Your task to perform on an android device: Open calendar and show me the third week of next month Image 0: 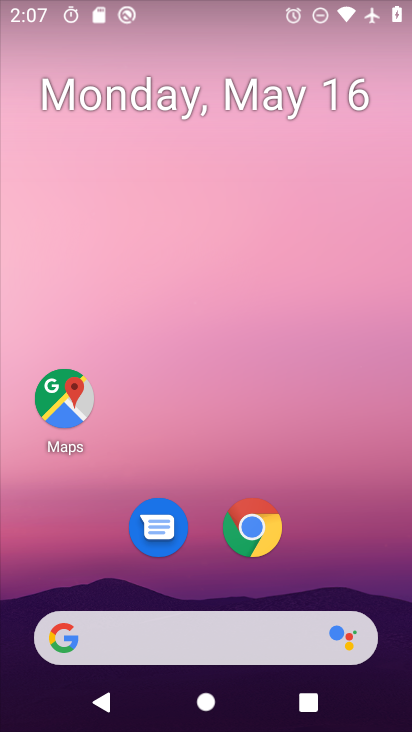
Step 0: press home button
Your task to perform on an android device: Open calendar and show me the third week of next month Image 1: 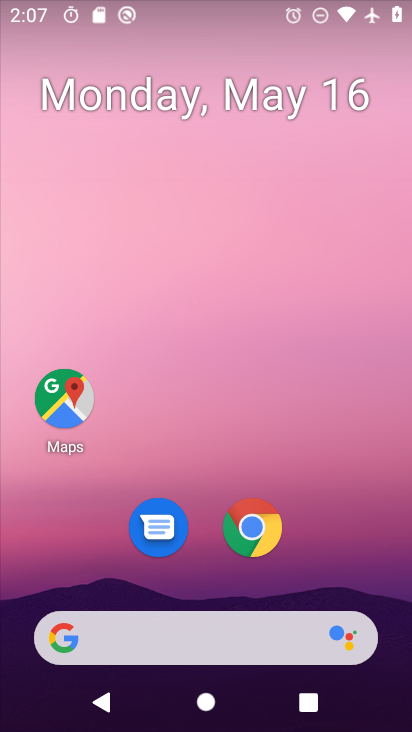
Step 1: drag from (187, 644) to (346, 237)
Your task to perform on an android device: Open calendar and show me the third week of next month Image 2: 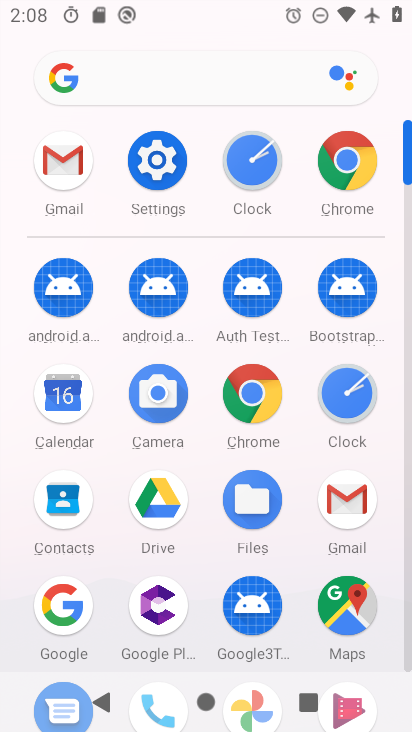
Step 2: click (66, 403)
Your task to perform on an android device: Open calendar and show me the third week of next month Image 3: 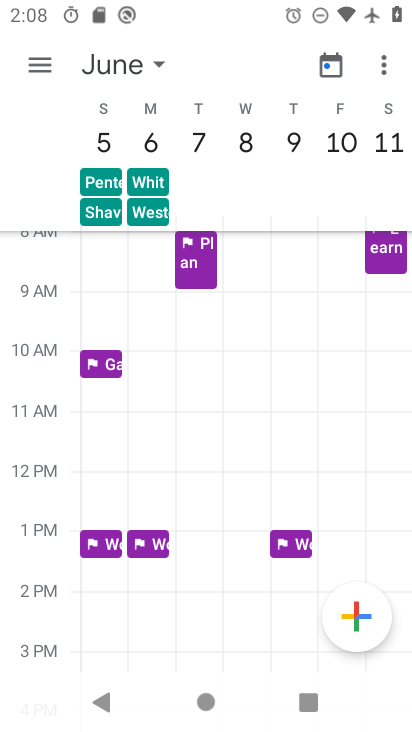
Step 3: click (103, 67)
Your task to perform on an android device: Open calendar and show me the third week of next month Image 4: 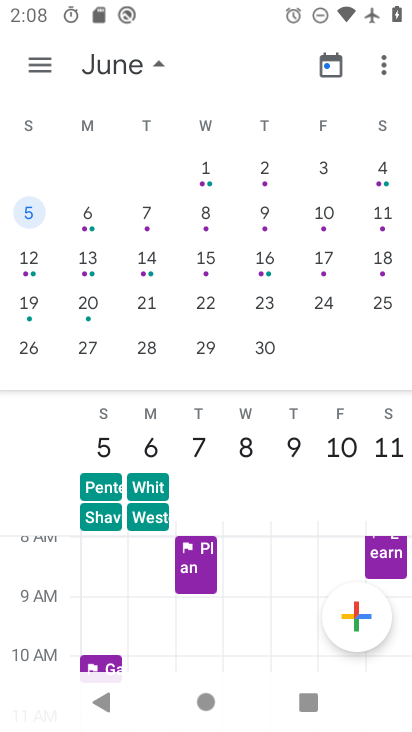
Step 4: click (34, 258)
Your task to perform on an android device: Open calendar and show me the third week of next month Image 5: 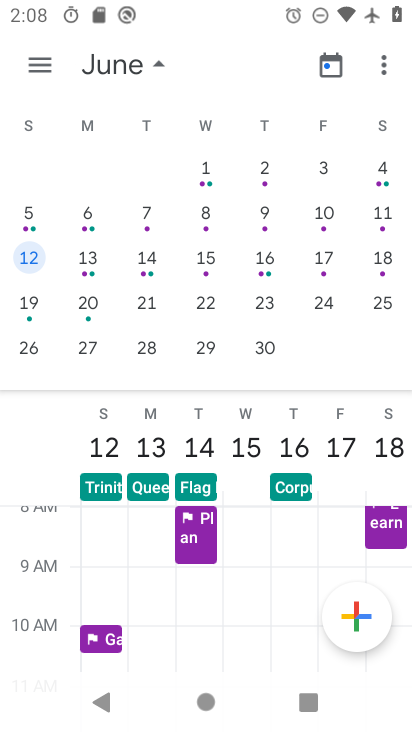
Step 5: click (43, 54)
Your task to perform on an android device: Open calendar and show me the third week of next month Image 6: 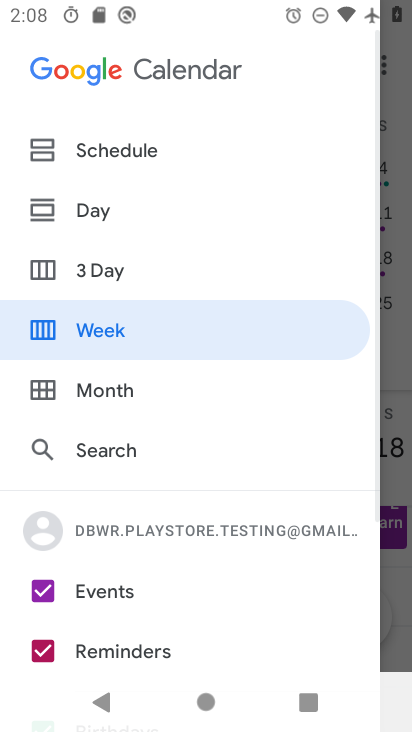
Step 6: click (105, 331)
Your task to perform on an android device: Open calendar and show me the third week of next month Image 7: 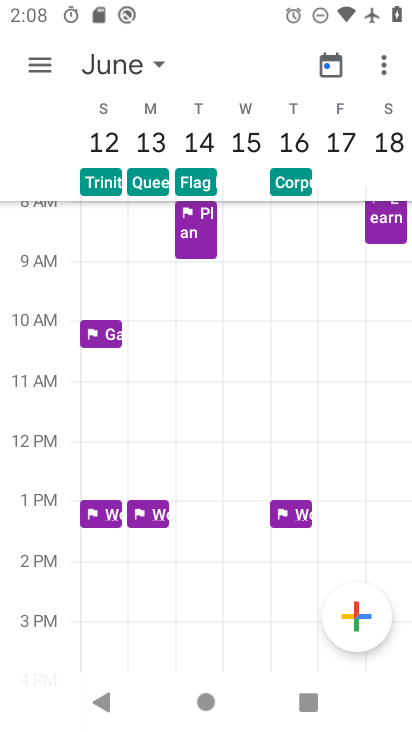
Step 7: task complete